Your task to perform on an android device: See recent photos Image 0: 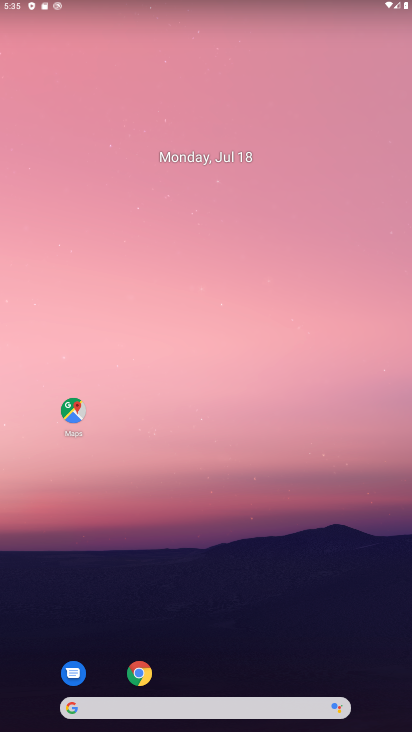
Step 0: drag from (217, 539) to (222, 232)
Your task to perform on an android device: See recent photos Image 1: 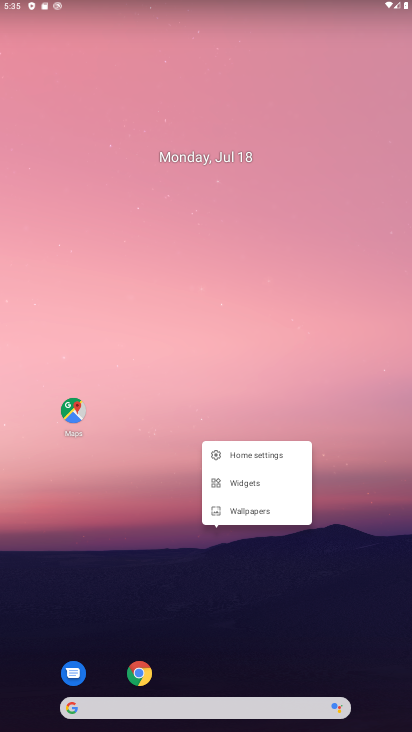
Step 1: click (222, 232)
Your task to perform on an android device: See recent photos Image 2: 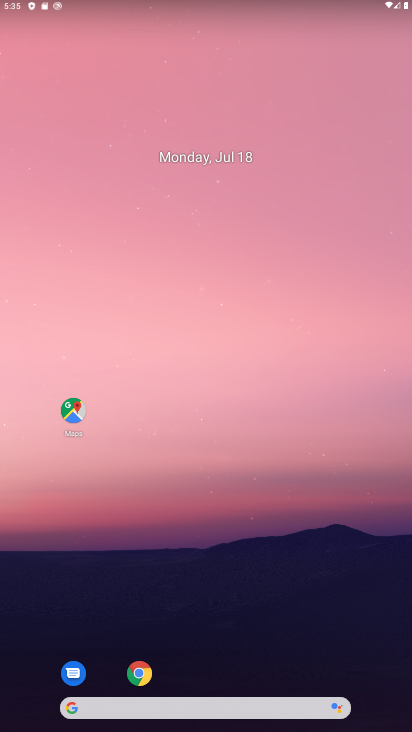
Step 2: drag from (207, 579) to (201, 307)
Your task to perform on an android device: See recent photos Image 3: 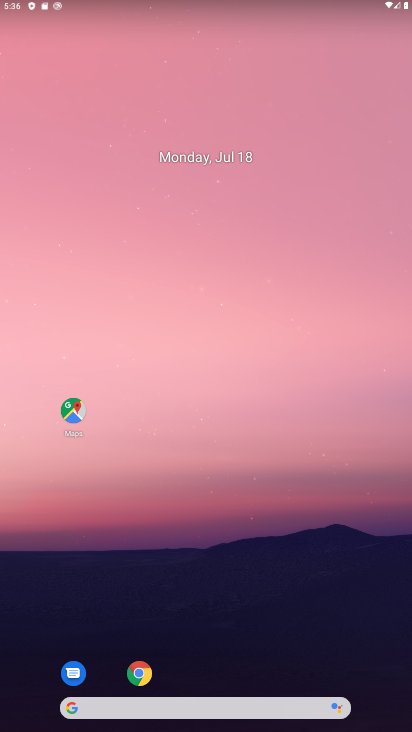
Step 3: drag from (263, 662) to (297, 199)
Your task to perform on an android device: See recent photos Image 4: 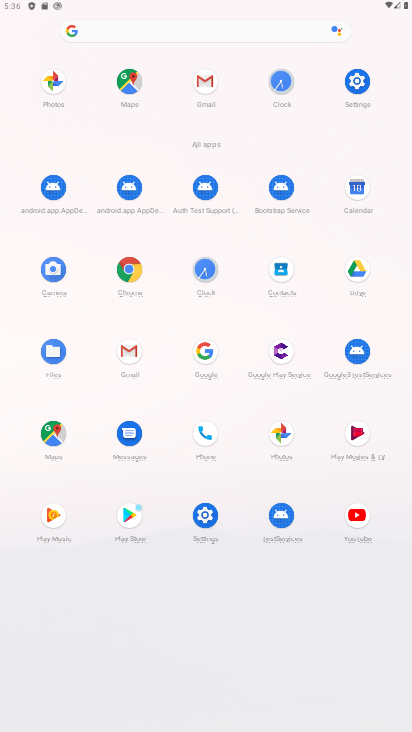
Step 4: click (47, 81)
Your task to perform on an android device: See recent photos Image 5: 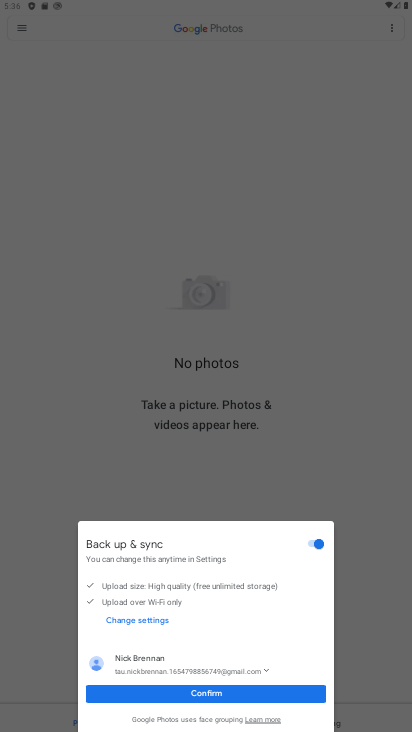
Step 5: task complete